Your task to perform on an android device: turn on data saver in the chrome app Image 0: 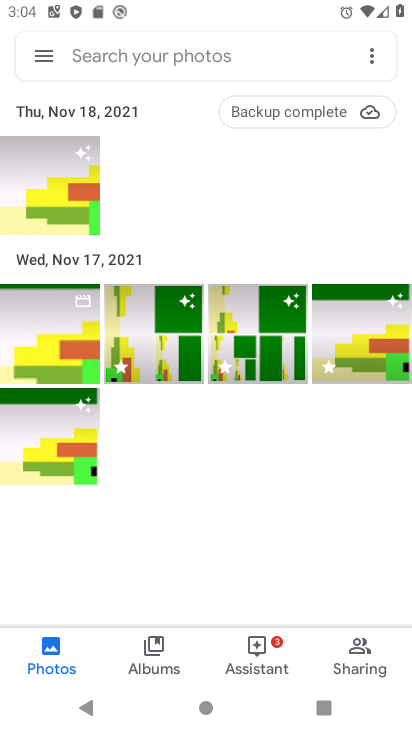
Step 0: task complete